Your task to perform on an android device: Go to network settings Image 0: 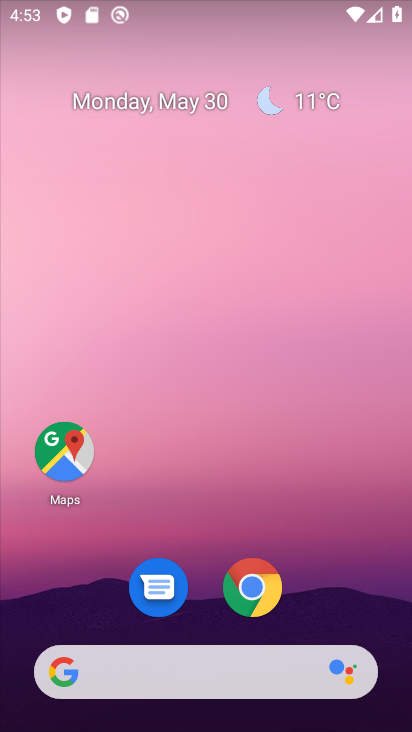
Step 0: drag from (321, 563) to (208, 0)
Your task to perform on an android device: Go to network settings Image 1: 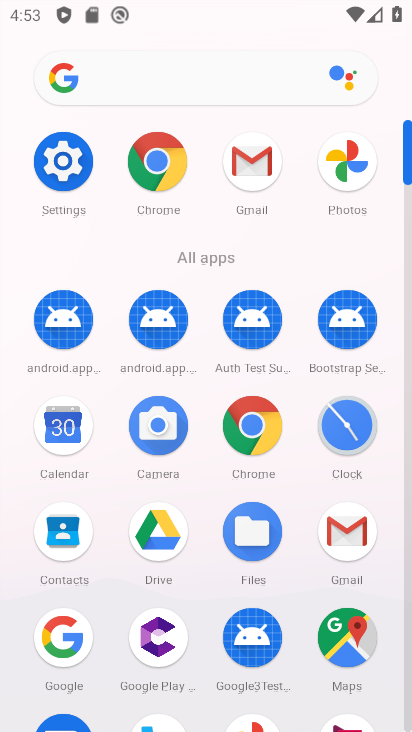
Step 1: drag from (9, 513) to (9, 220)
Your task to perform on an android device: Go to network settings Image 2: 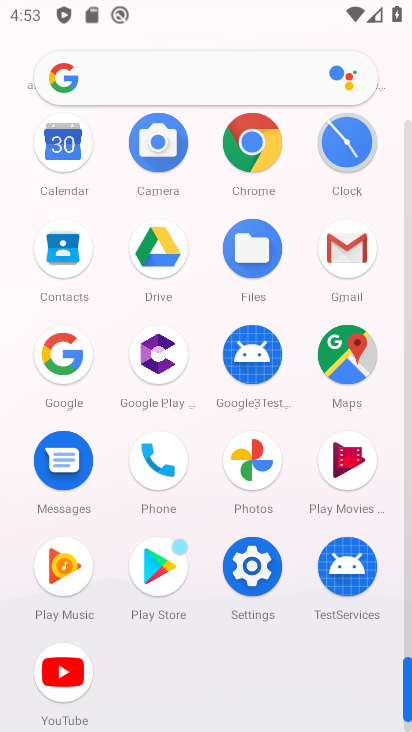
Step 2: click (251, 560)
Your task to perform on an android device: Go to network settings Image 3: 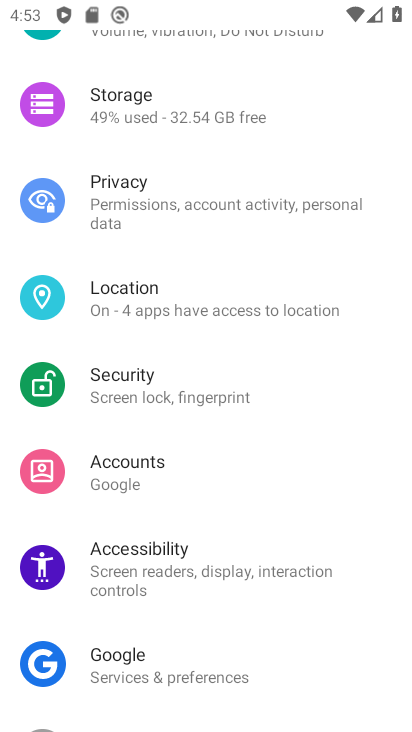
Step 3: drag from (284, 106) to (305, 575)
Your task to perform on an android device: Go to network settings Image 4: 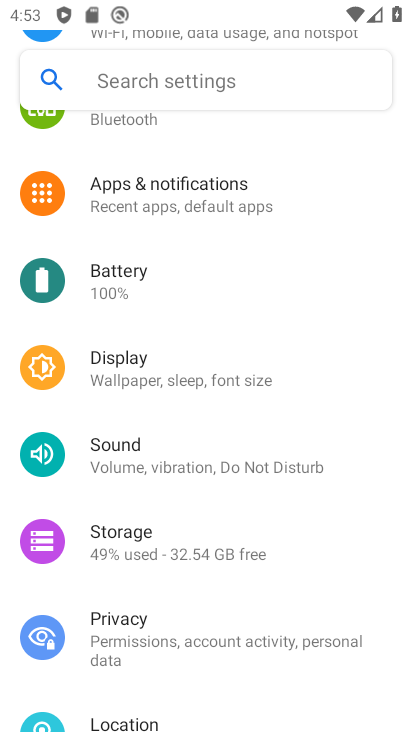
Step 4: drag from (244, 188) to (250, 611)
Your task to perform on an android device: Go to network settings Image 5: 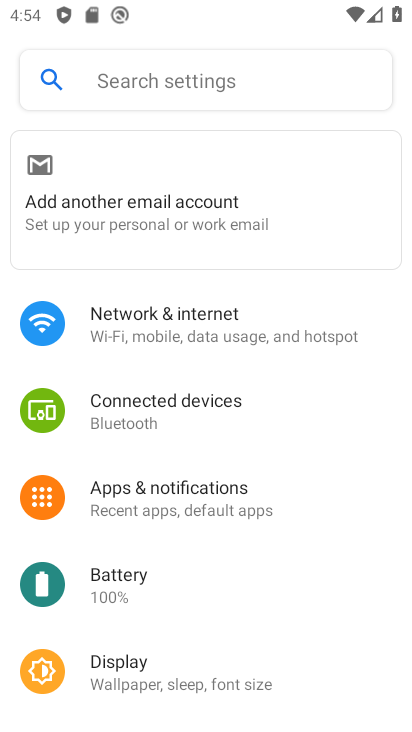
Step 5: drag from (280, 552) to (278, 270)
Your task to perform on an android device: Go to network settings Image 6: 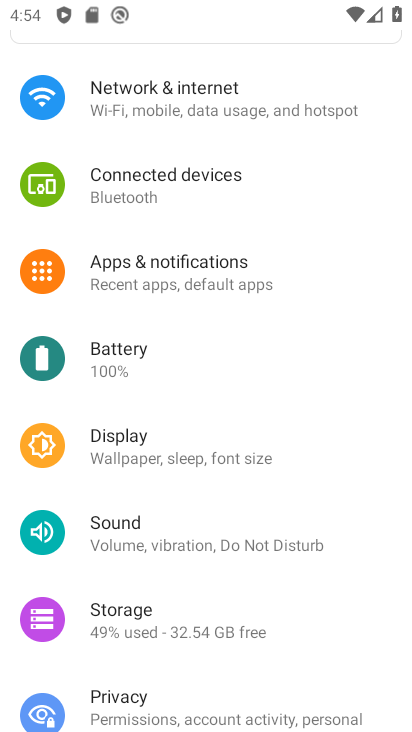
Step 6: click (292, 151)
Your task to perform on an android device: Go to network settings Image 7: 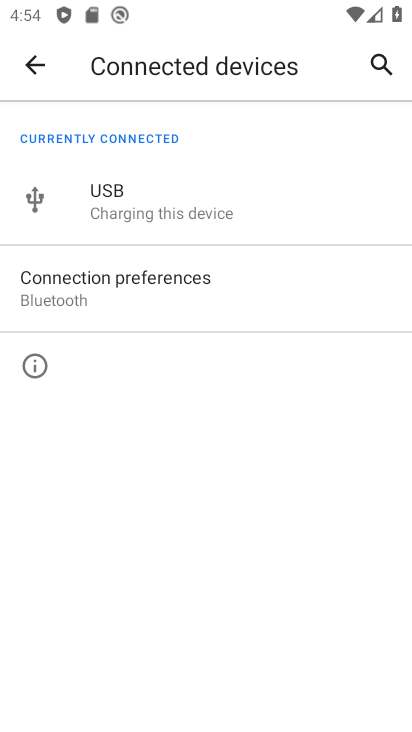
Step 7: click (44, 42)
Your task to perform on an android device: Go to network settings Image 8: 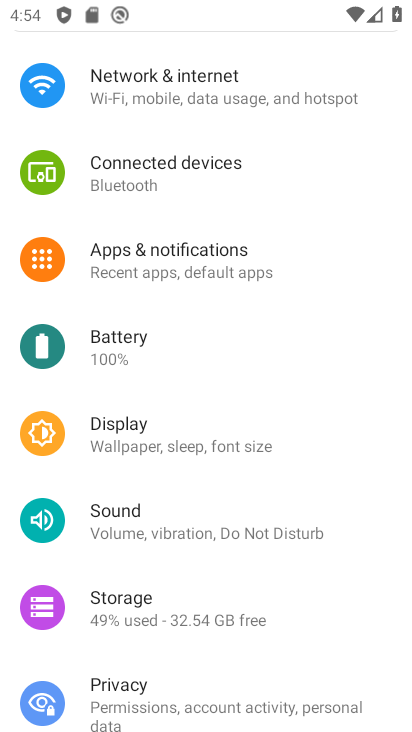
Step 8: drag from (249, 157) to (264, 513)
Your task to perform on an android device: Go to network settings Image 9: 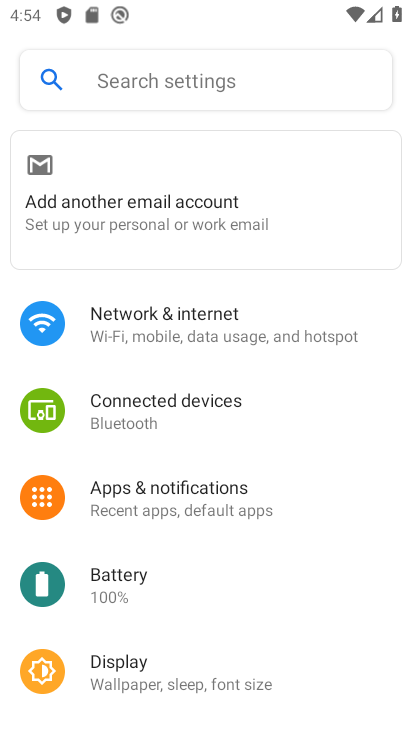
Step 9: click (203, 320)
Your task to perform on an android device: Go to network settings Image 10: 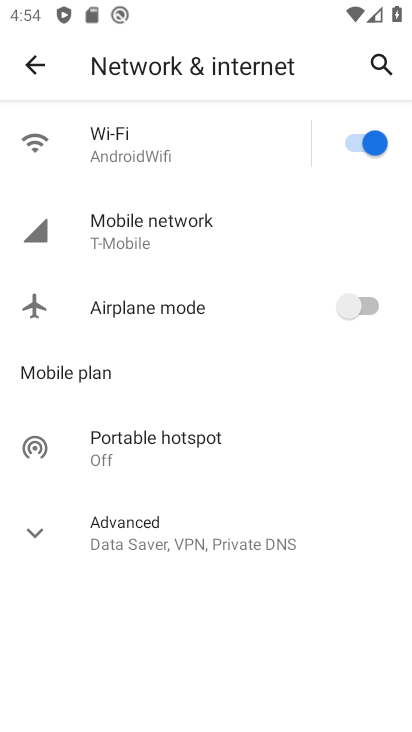
Step 10: click (178, 236)
Your task to perform on an android device: Go to network settings Image 11: 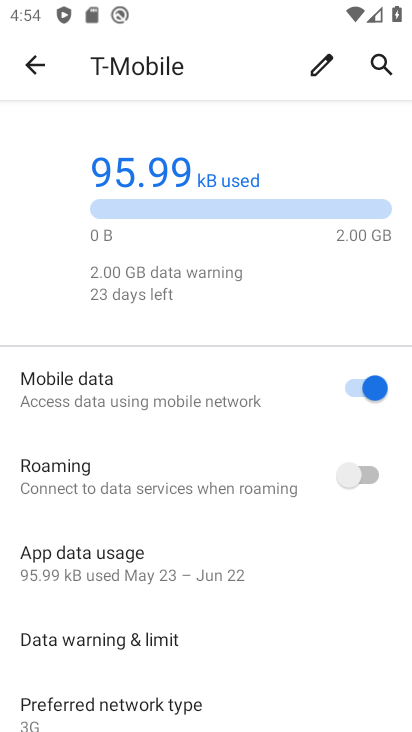
Step 11: task complete